Your task to perform on an android device: turn on notifications settings in the gmail app Image 0: 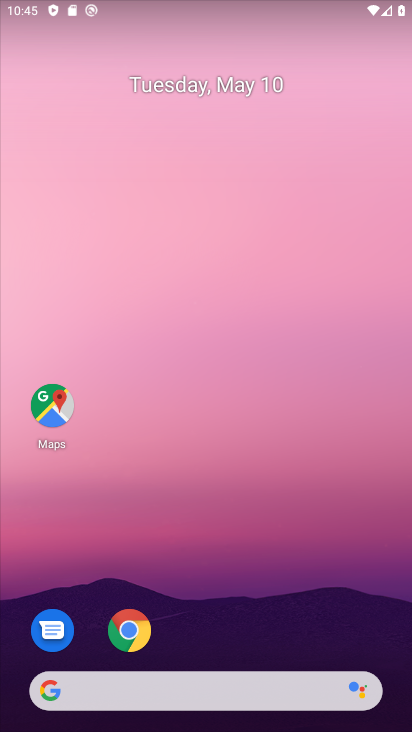
Step 0: drag from (209, 667) to (349, 174)
Your task to perform on an android device: turn on notifications settings in the gmail app Image 1: 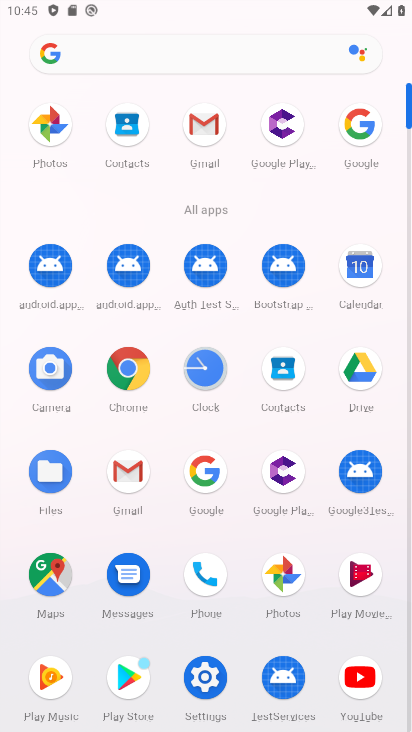
Step 1: click (144, 470)
Your task to perform on an android device: turn on notifications settings in the gmail app Image 2: 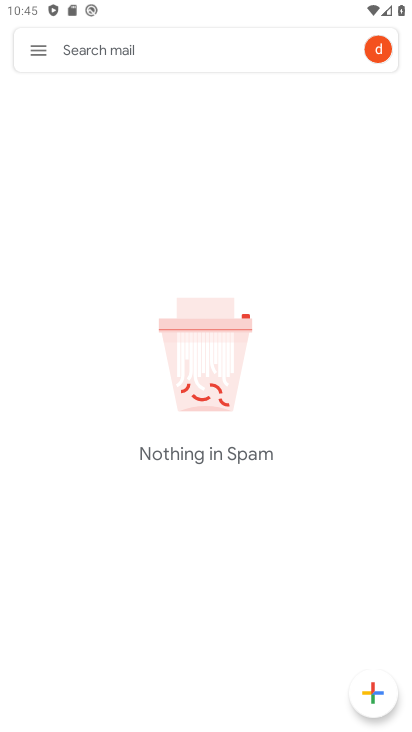
Step 2: click (48, 57)
Your task to perform on an android device: turn on notifications settings in the gmail app Image 3: 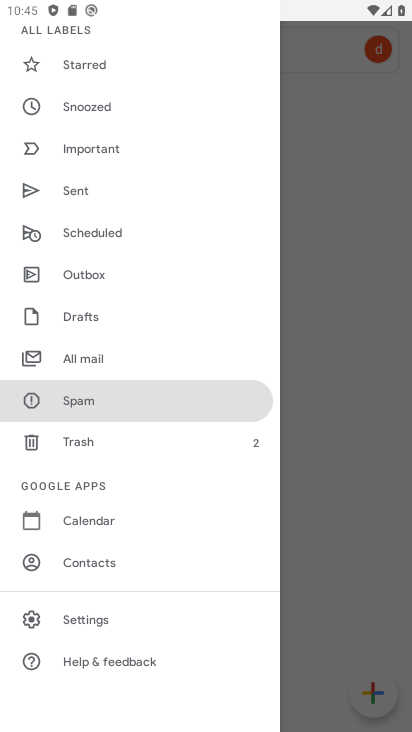
Step 3: click (93, 626)
Your task to perform on an android device: turn on notifications settings in the gmail app Image 4: 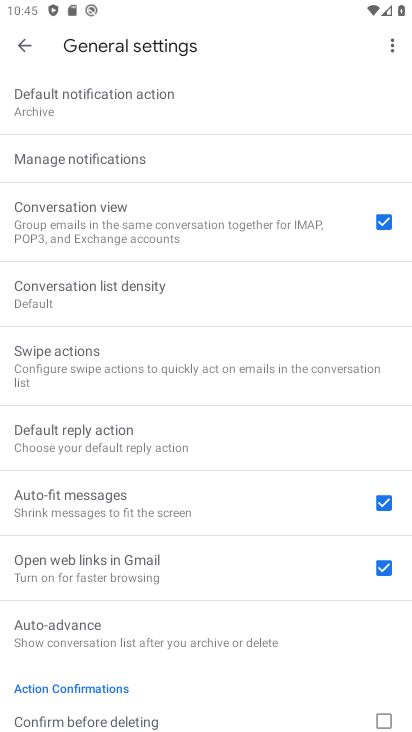
Step 4: click (23, 46)
Your task to perform on an android device: turn on notifications settings in the gmail app Image 5: 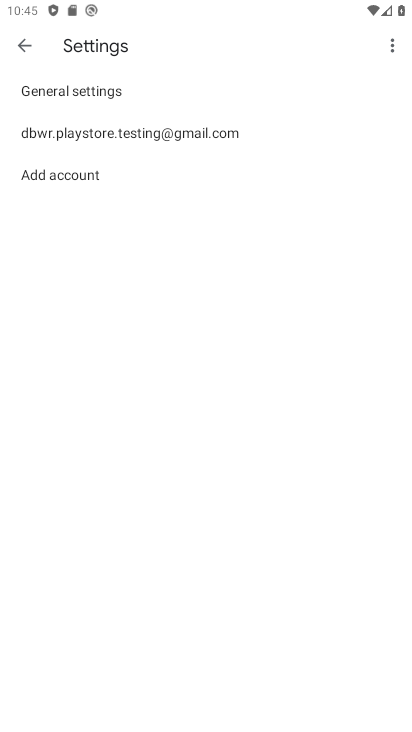
Step 5: click (160, 145)
Your task to perform on an android device: turn on notifications settings in the gmail app Image 6: 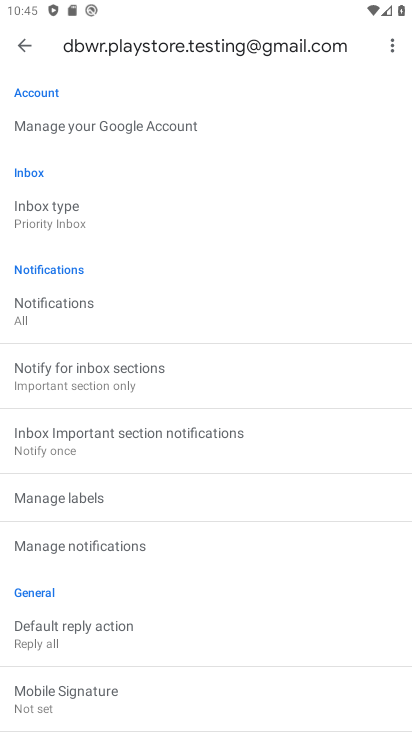
Step 6: click (147, 549)
Your task to perform on an android device: turn on notifications settings in the gmail app Image 7: 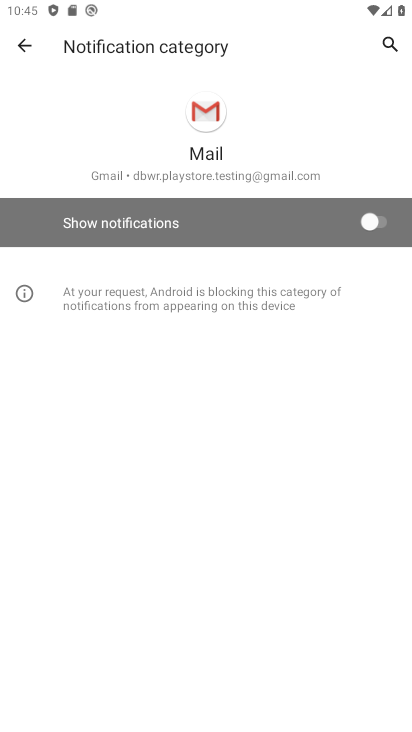
Step 7: click (387, 218)
Your task to perform on an android device: turn on notifications settings in the gmail app Image 8: 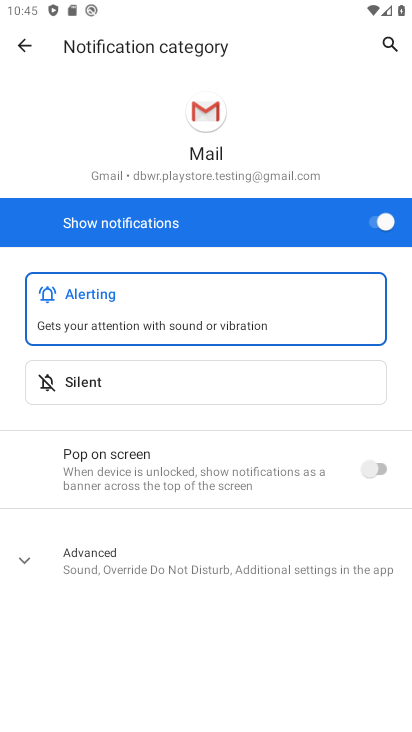
Step 8: task complete